Your task to perform on an android device: turn notification dots on Image 0: 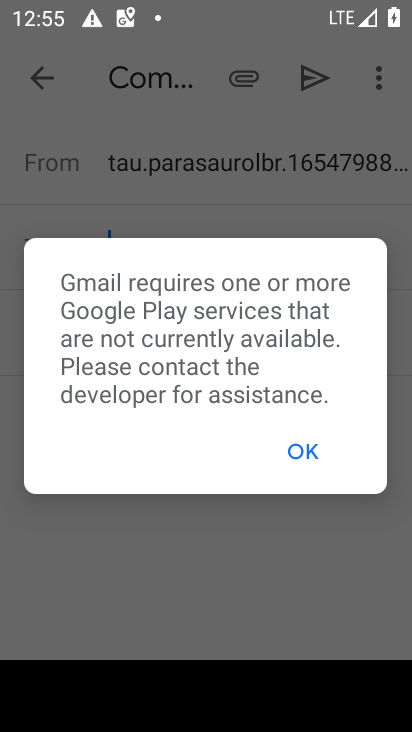
Step 0: press home button
Your task to perform on an android device: turn notification dots on Image 1: 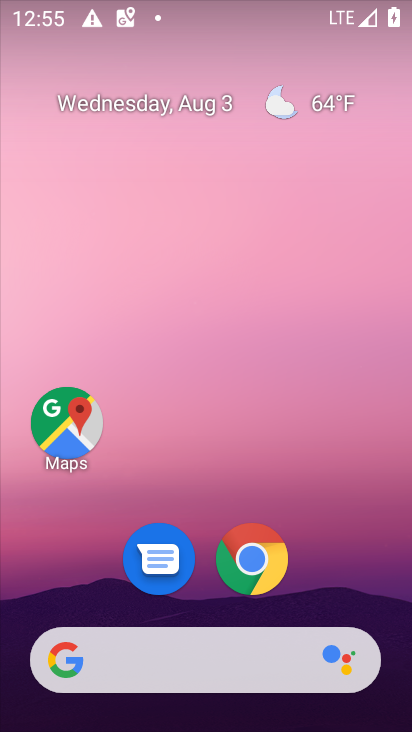
Step 1: drag from (203, 614) to (220, 3)
Your task to perform on an android device: turn notification dots on Image 2: 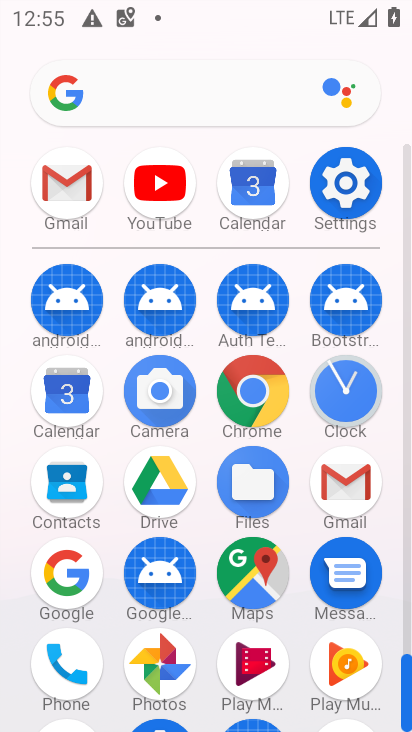
Step 2: click (359, 175)
Your task to perform on an android device: turn notification dots on Image 3: 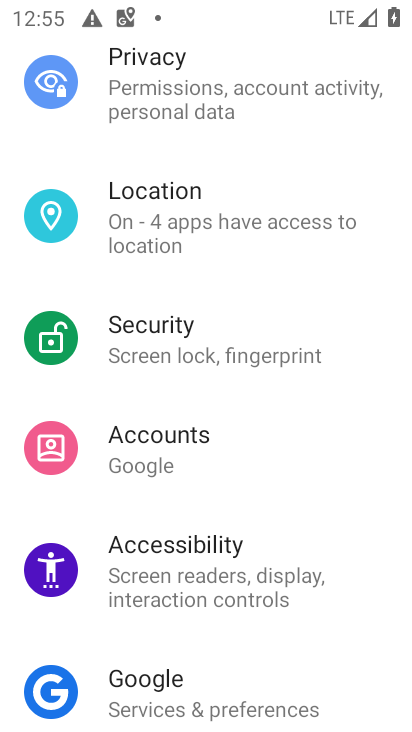
Step 3: drag from (242, 191) to (193, 590)
Your task to perform on an android device: turn notification dots on Image 4: 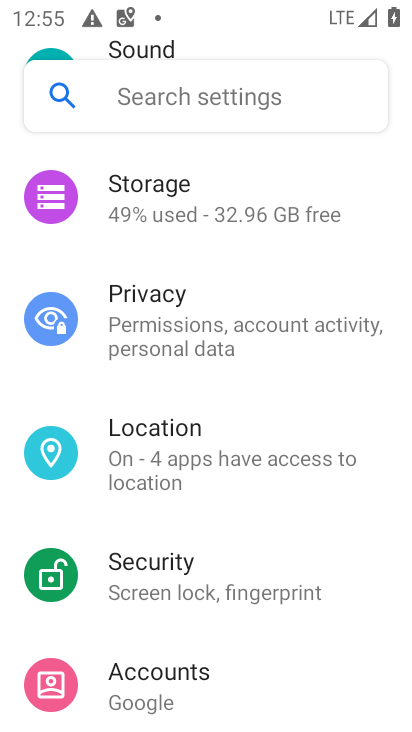
Step 4: drag from (239, 162) to (221, 630)
Your task to perform on an android device: turn notification dots on Image 5: 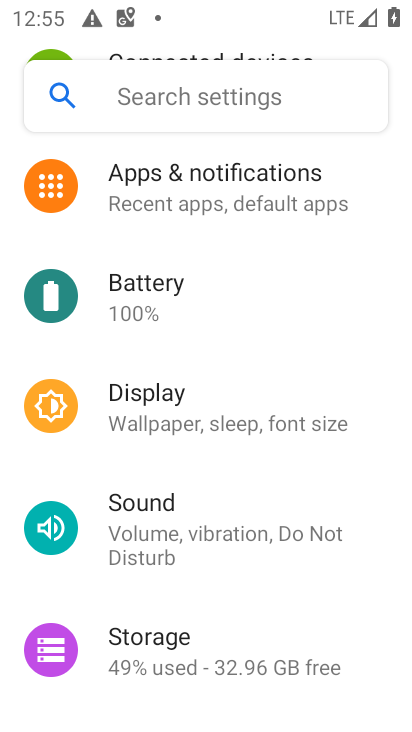
Step 5: click (235, 208)
Your task to perform on an android device: turn notification dots on Image 6: 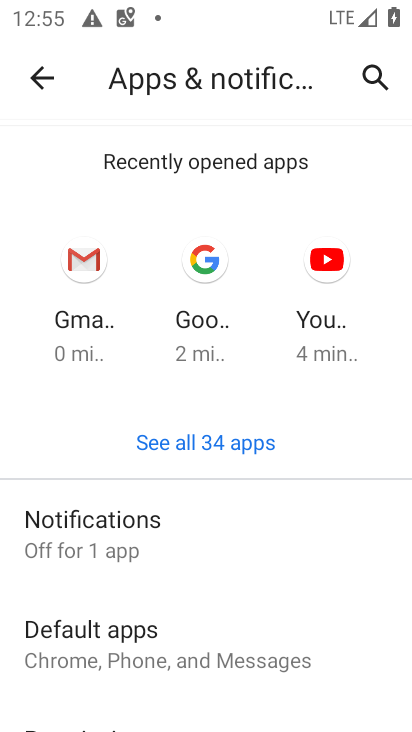
Step 6: click (81, 529)
Your task to perform on an android device: turn notification dots on Image 7: 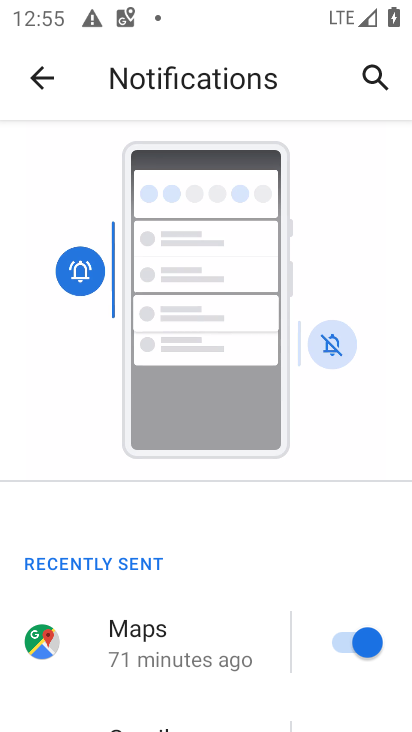
Step 7: drag from (162, 686) to (199, 282)
Your task to perform on an android device: turn notification dots on Image 8: 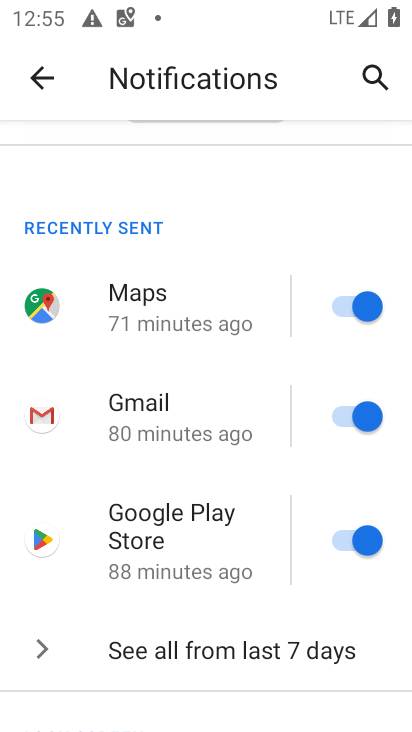
Step 8: drag from (202, 700) to (217, 214)
Your task to perform on an android device: turn notification dots on Image 9: 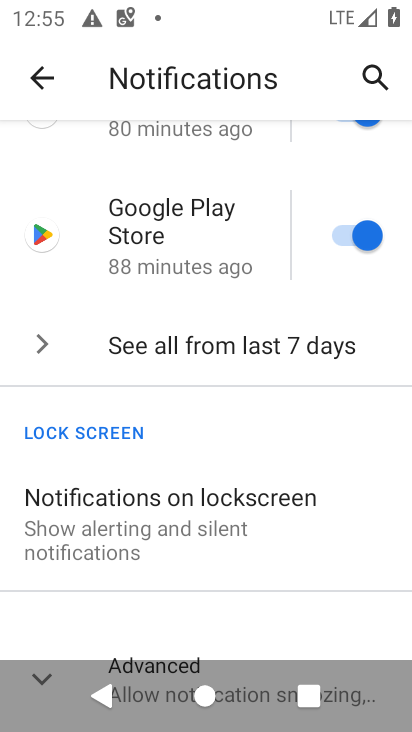
Step 9: drag from (185, 580) to (187, 332)
Your task to perform on an android device: turn notification dots on Image 10: 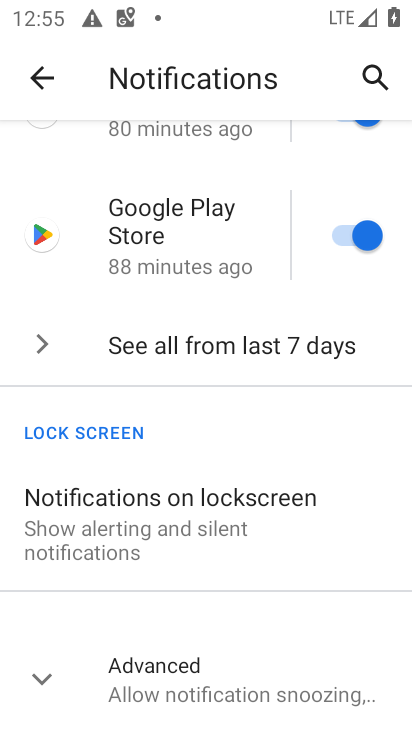
Step 10: click (164, 653)
Your task to perform on an android device: turn notification dots on Image 11: 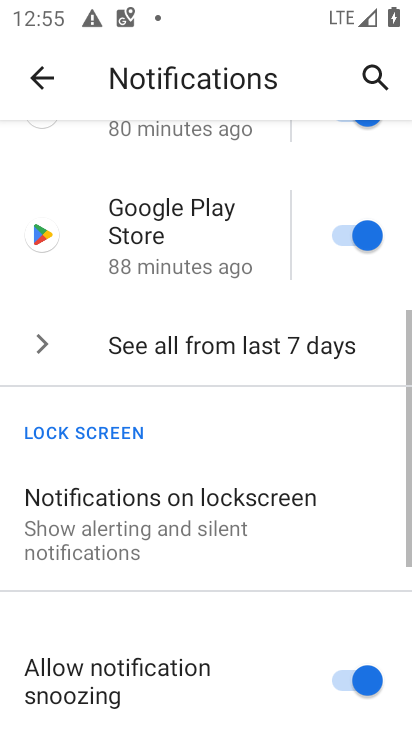
Step 11: drag from (221, 689) to (222, 413)
Your task to perform on an android device: turn notification dots on Image 12: 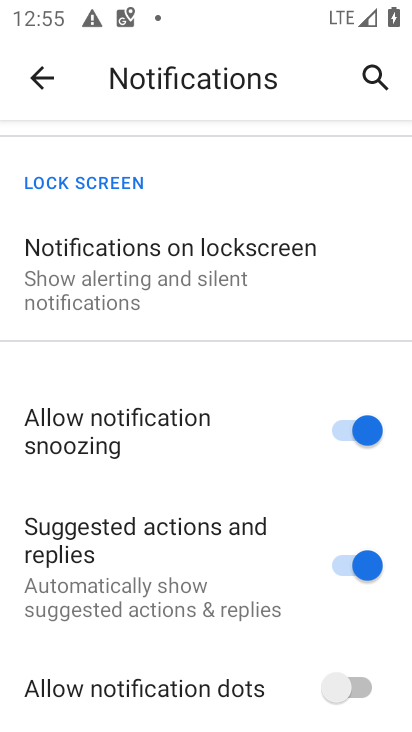
Step 12: click (355, 686)
Your task to perform on an android device: turn notification dots on Image 13: 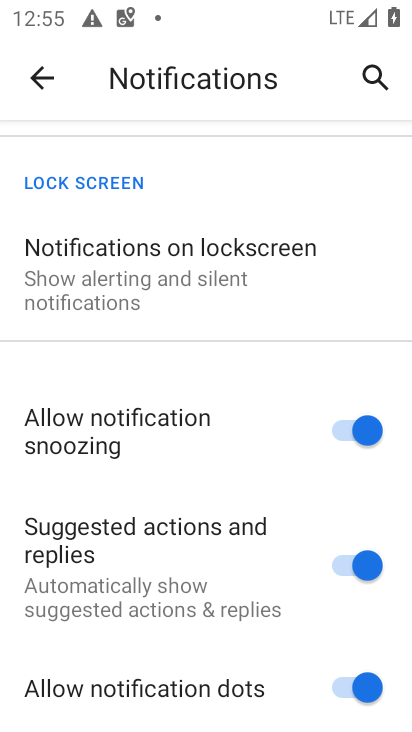
Step 13: task complete